Your task to perform on an android device: Open the map Image 0: 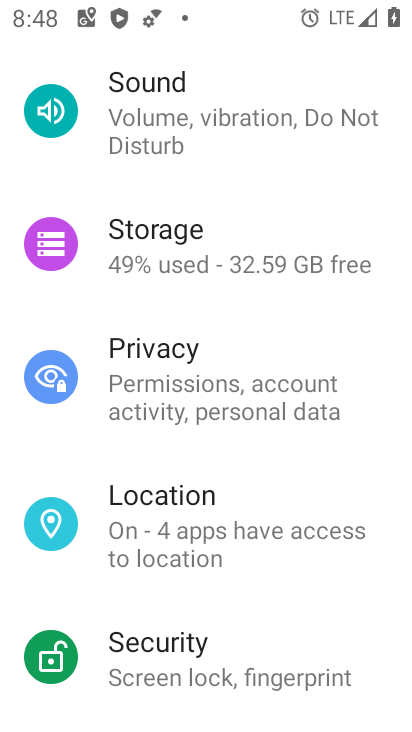
Step 0: press home button
Your task to perform on an android device: Open the map Image 1: 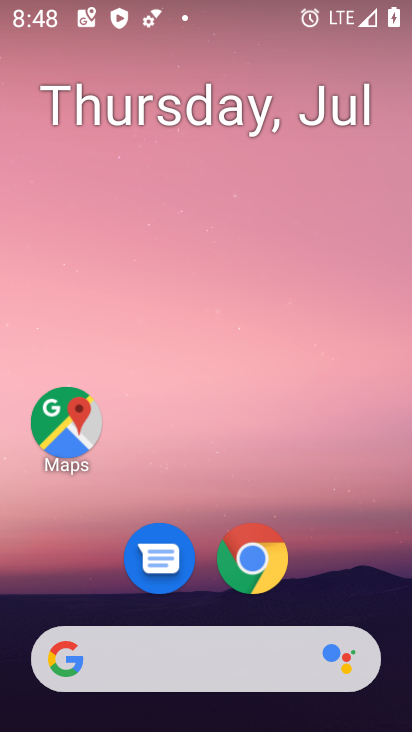
Step 1: drag from (219, 648) to (280, 196)
Your task to perform on an android device: Open the map Image 2: 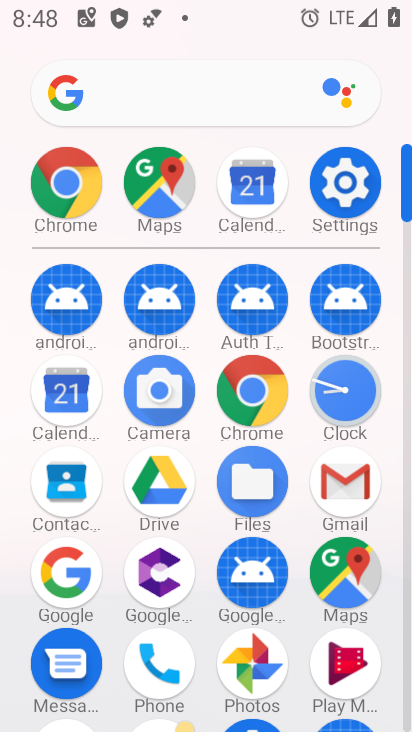
Step 2: drag from (238, 585) to (261, 328)
Your task to perform on an android device: Open the map Image 3: 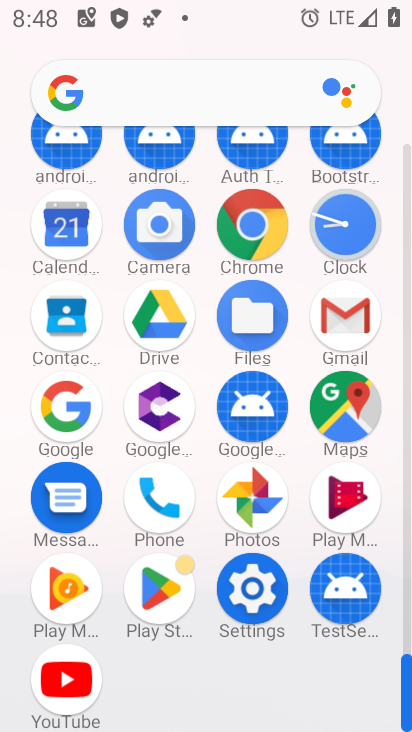
Step 3: click (355, 428)
Your task to perform on an android device: Open the map Image 4: 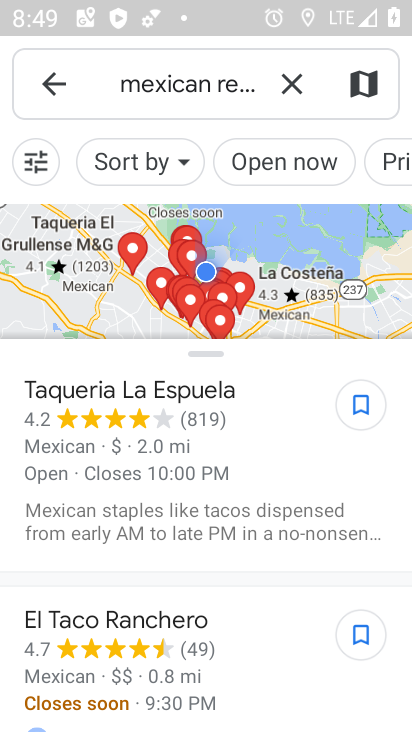
Step 4: task complete